Your task to perform on an android device: Do I have any events this weekend? Image 0: 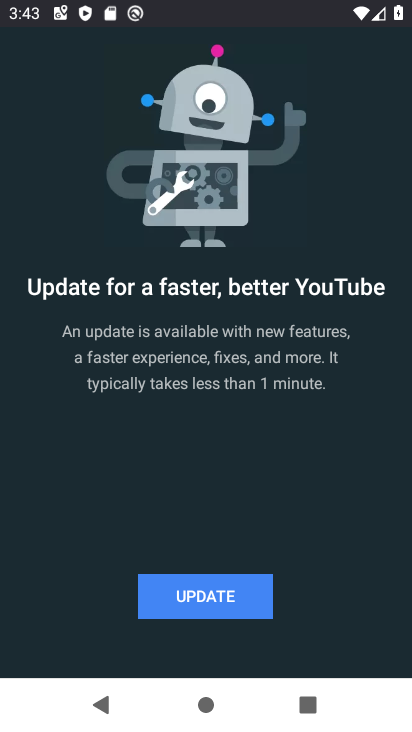
Step 0: press home button
Your task to perform on an android device: Do I have any events this weekend? Image 1: 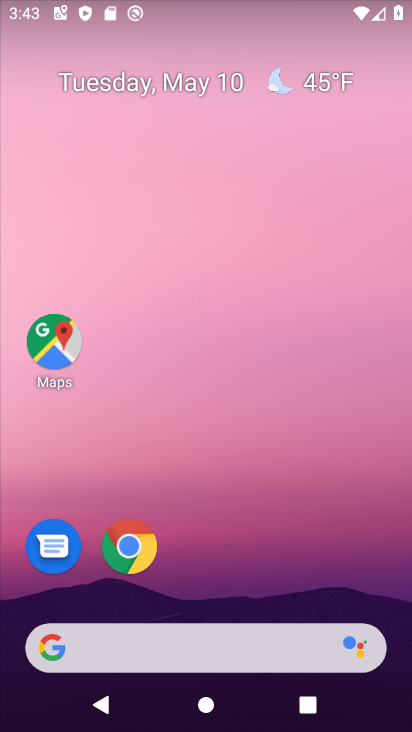
Step 1: drag from (258, 590) to (344, 35)
Your task to perform on an android device: Do I have any events this weekend? Image 2: 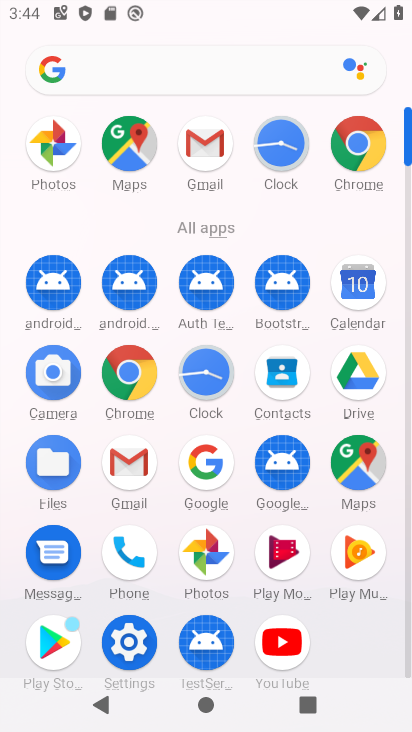
Step 2: click (359, 291)
Your task to perform on an android device: Do I have any events this weekend? Image 3: 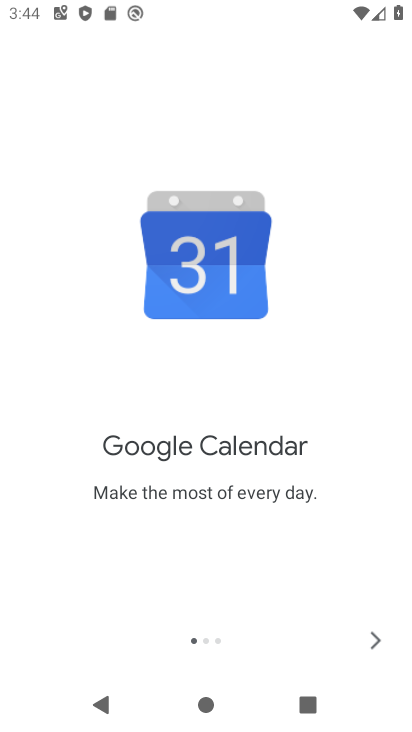
Step 3: click (362, 635)
Your task to perform on an android device: Do I have any events this weekend? Image 4: 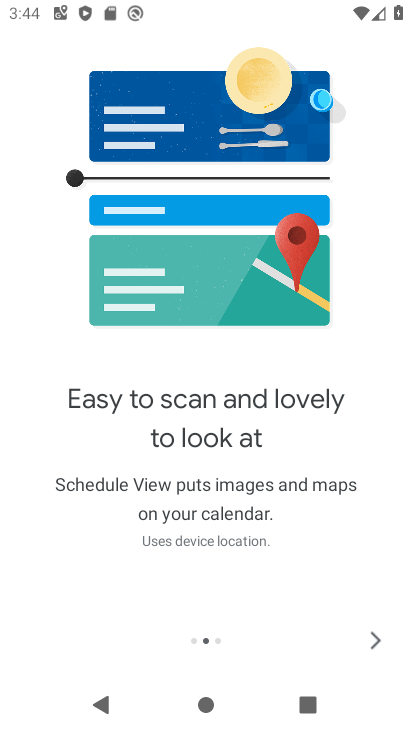
Step 4: click (362, 642)
Your task to perform on an android device: Do I have any events this weekend? Image 5: 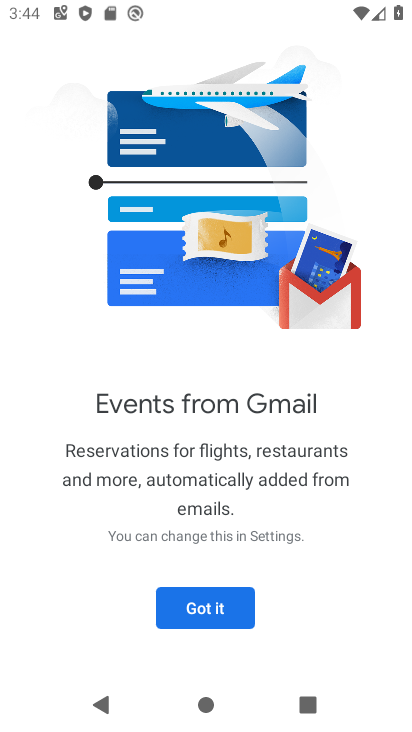
Step 5: click (167, 599)
Your task to perform on an android device: Do I have any events this weekend? Image 6: 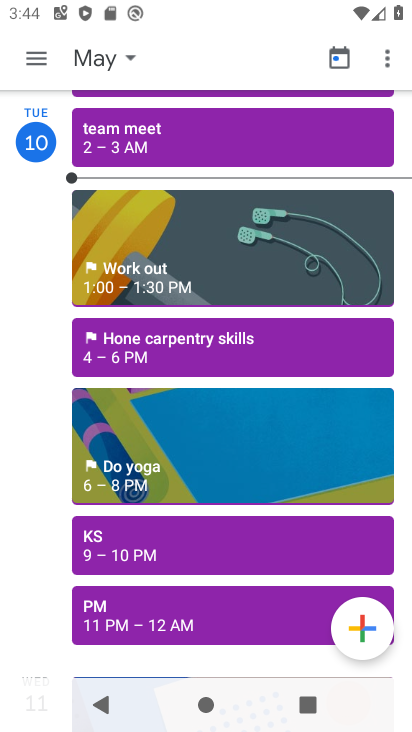
Step 6: drag from (187, 560) to (337, 37)
Your task to perform on an android device: Do I have any events this weekend? Image 7: 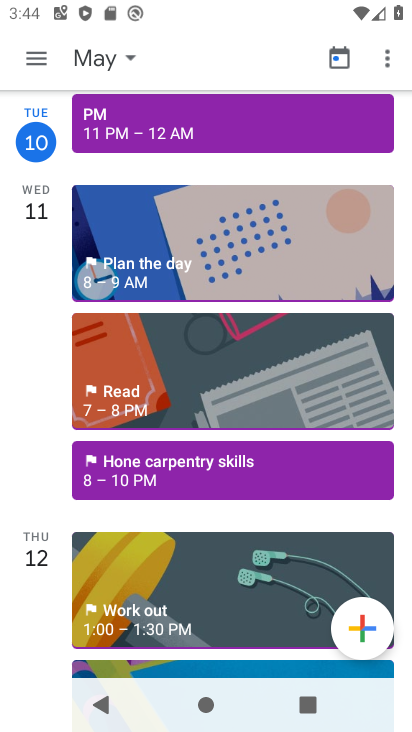
Step 7: drag from (172, 580) to (267, 62)
Your task to perform on an android device: Do I have any events this weekend? Image 8: 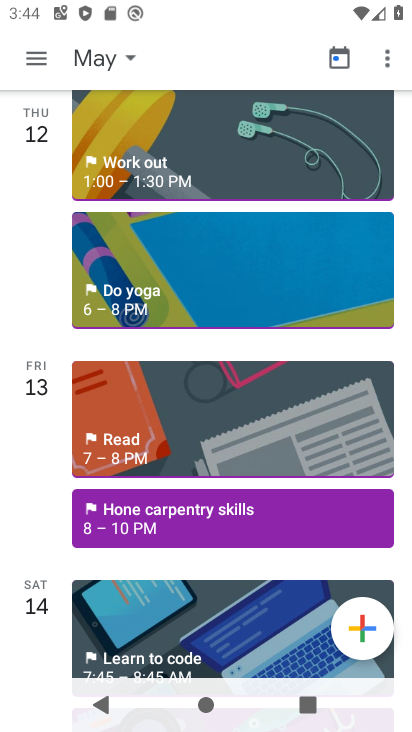
Step 8: drag from (186, 627) to (271, 398)
Your task to perform on an android device: Do I have any events this weekend? Image 9: 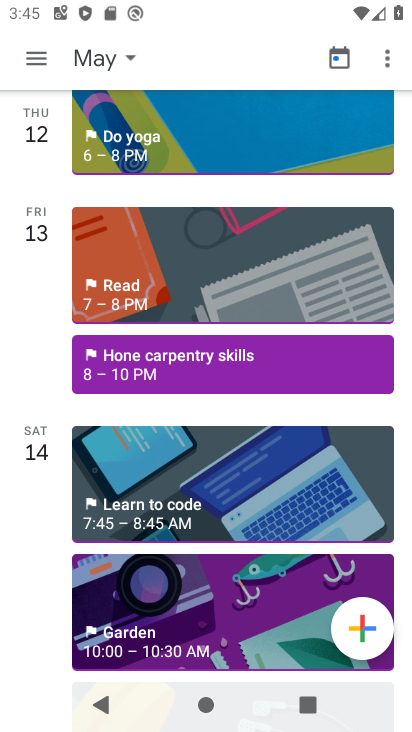
Step 9: click (188, 372)
Your task to perform on an android device: Do I have any events this weekend? Image 10: 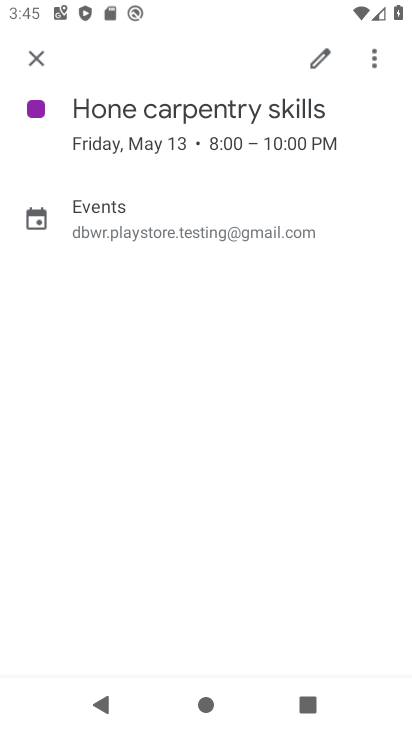
Step 10: task complete